Your task to perform on an android device: Look up the best rated kitchen knives on Amazon. Image 0: 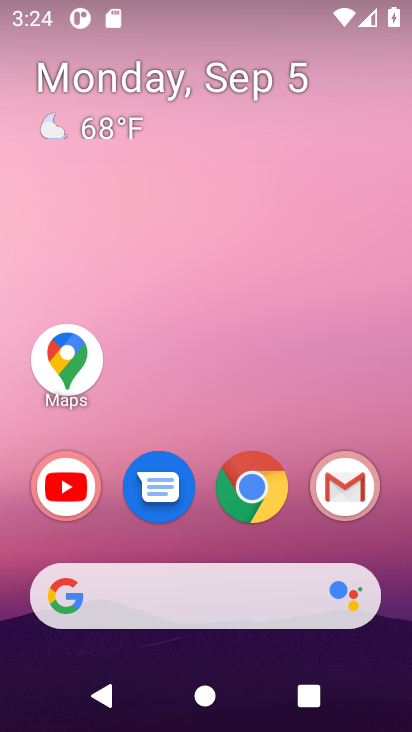
Step 0: click (245, 484)
Your task to perform on an android device: Look up the best rated kitchen knives on Amazon. Image 1: 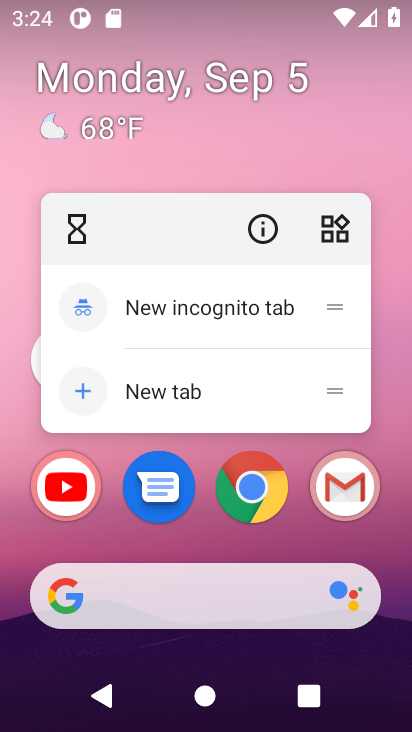
Step 1: click (253, 507)
Your task to perform on an android device: Look up the best rated kitchen knives on Amazon. Image 2: 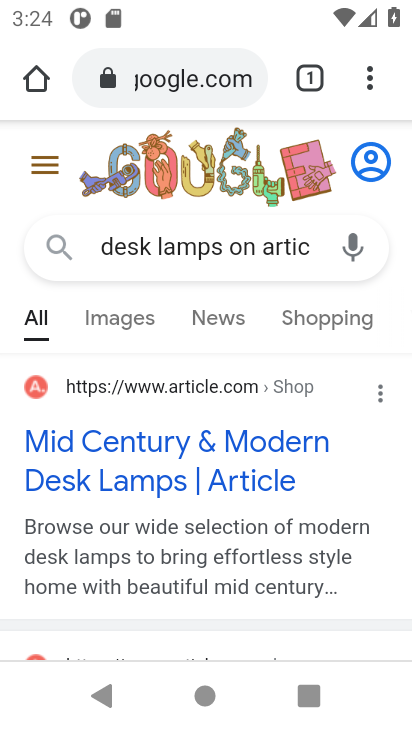
Step 2: click (189, 81)
Your task to perform on an android device: Look up the best rated kitchen knives on Amazon. Image 3: 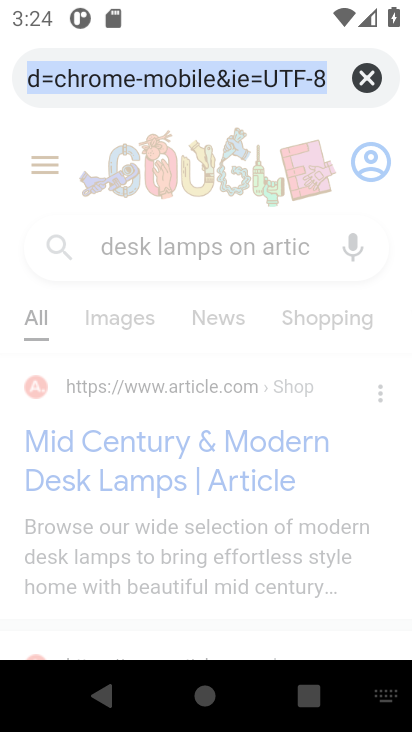
Step 3: click (371, 86)
Your task to perform on an android device: Look up the best rated kitchen knives on Amazon. Image 4: 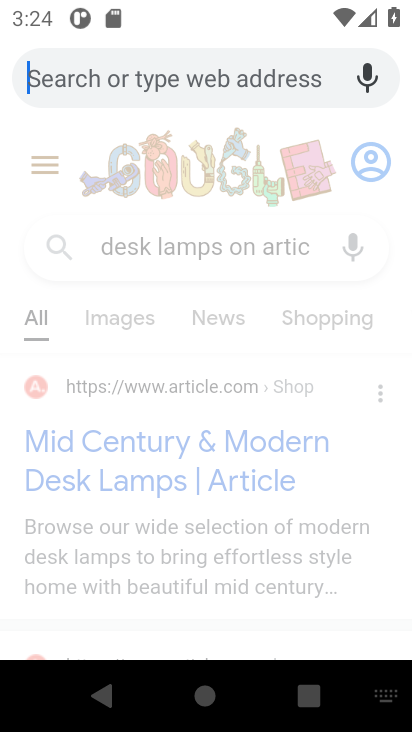
Step 4: type "the best rated kitchen knives on Amazon."
Your task to perform on an android device: Look up the best rated kitchen knives on Amazon. Image 5: 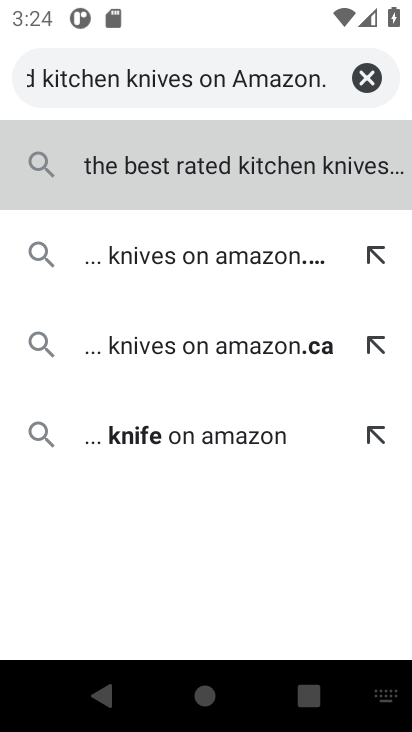
Step 5: click (232, 160)
Your task to perform on an android device: Look up the best rated kitchen knives on Amazon. Image 6: 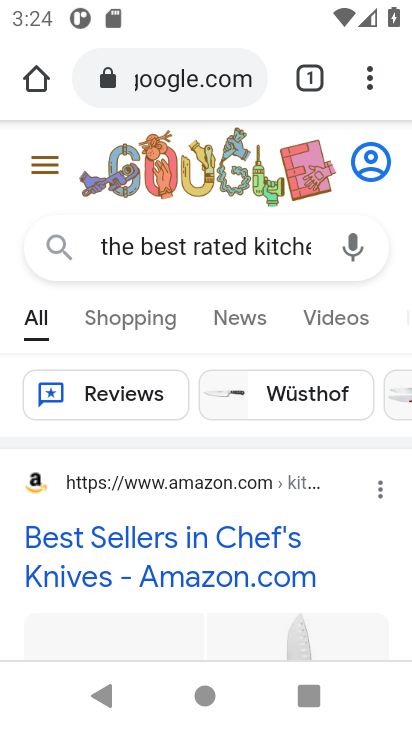
Step 6: task complete